Your task to perform on an android device: change keyboard looks Image 0: 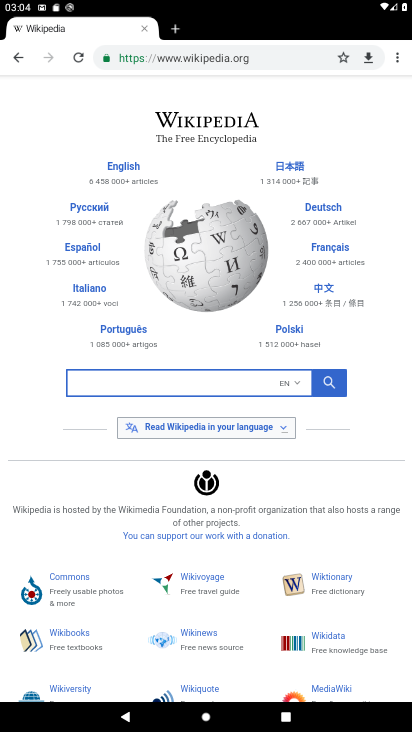
Step 0: press home button
Your task to perform on an android device: change keyboard looks Image 1: 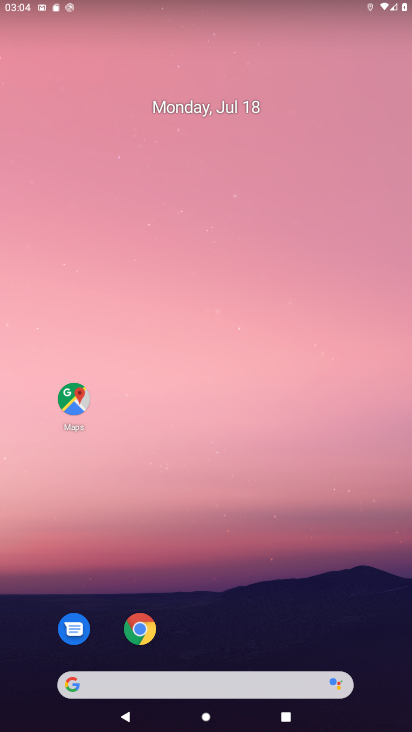
Step 1: drag from (348, 613) to (328, 108)
Your task to perform on an android device: change keyboard looks Image 2: 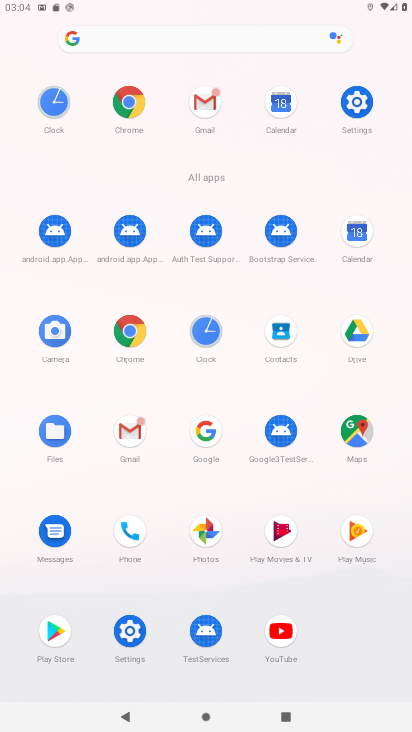
Step 2: click (360, 110)
Your task to perform on an android device: change keyboard looks Image 3: 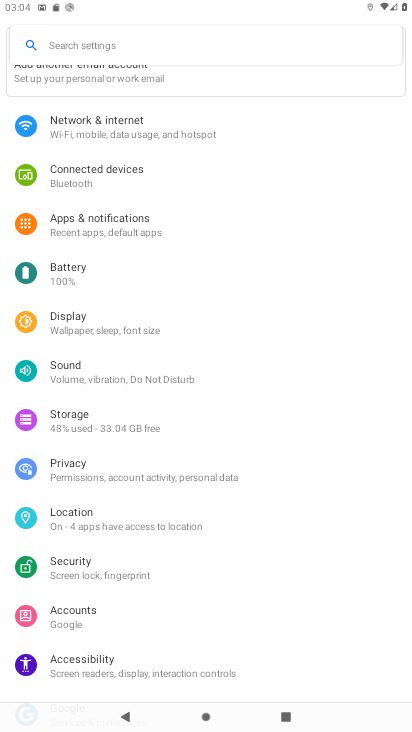
Step 3: drag from (334, 250) to (336, 376)
Your task to perform on an android device: change keyboard looks Image 4: 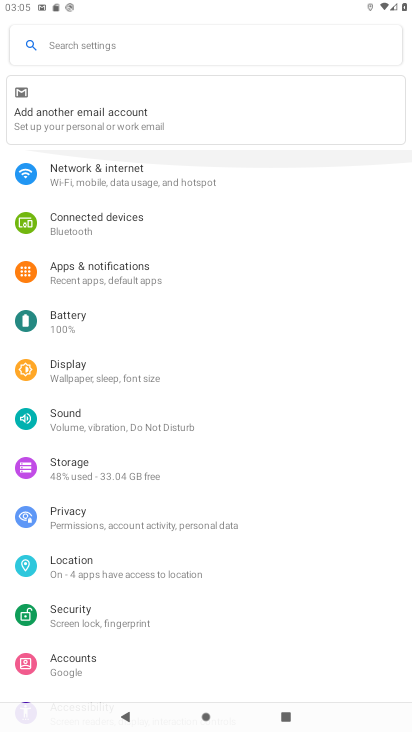
Step 4: drag from (338, 429) to (338, 365)
Your task to perform on an android device: change keyboard looks Image 5: 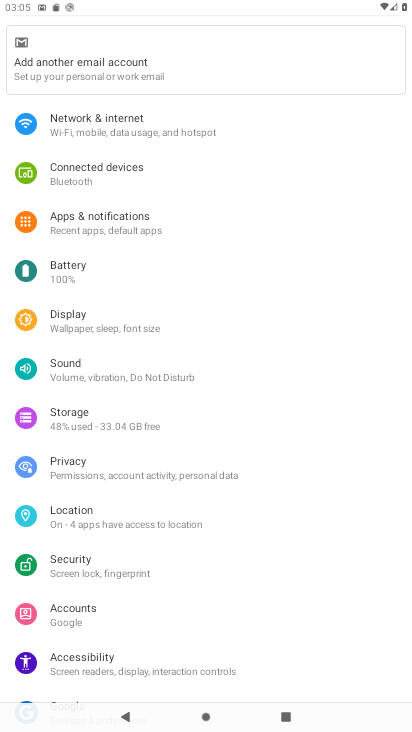
Step 5: drag from (350, 433) to (346, 364)
Your task to perform on an android device: change keyboard looks Image 6: 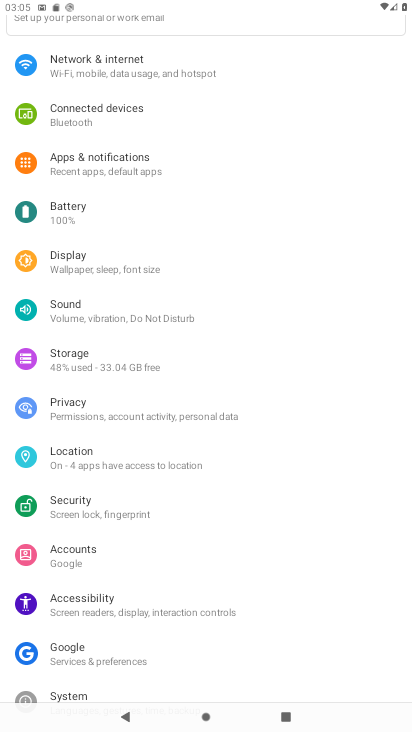
Step 6: drag from (346, 466) to (348, 383)
Your task to perform on an android device: change keyboard looks Image 7: 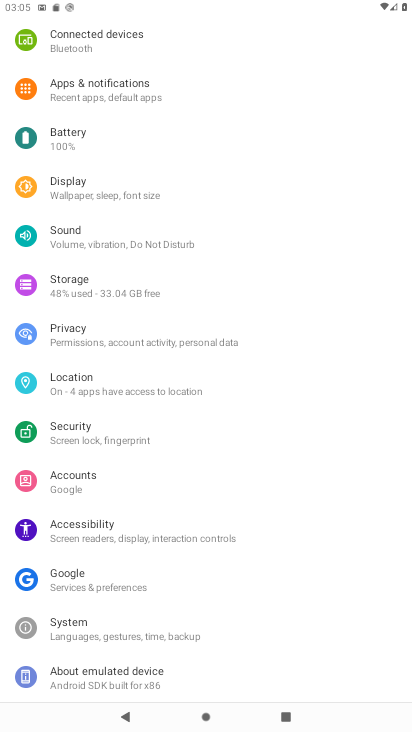
Step 7: drag from (349, 496) to (338, 399)
Your task to perform on an android device: change keyboard looks Image 8: 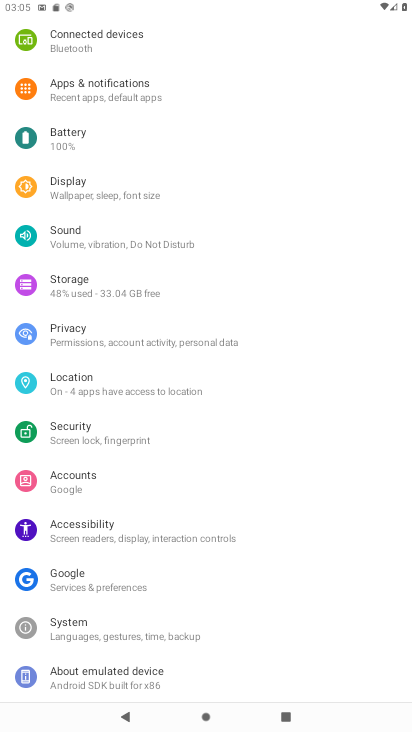
Step 8: click (235, 633)
Your task to perform on an android device: change keyboard looks Image 9: 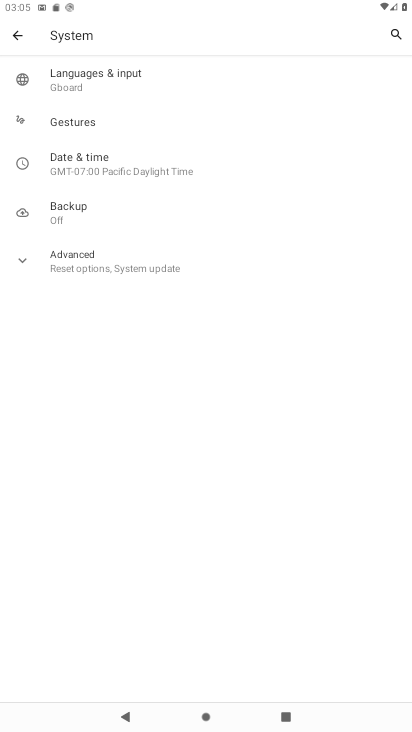
Step 9: click (119, 93)
Your task to perform on an android device: change keyboard looks Image 10: 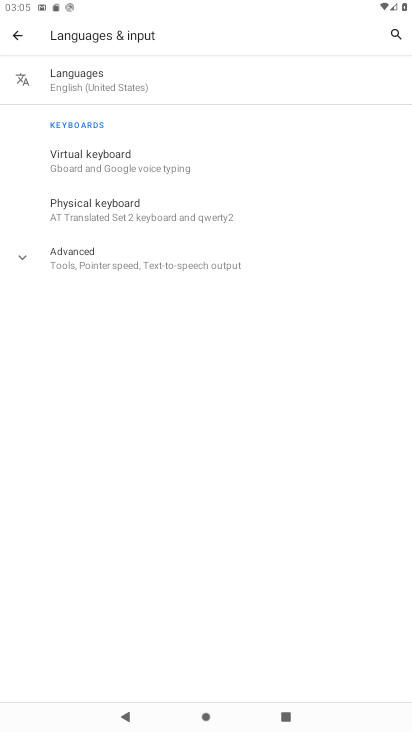
Step 10: click (158, 162)
Your task to perform on an android device: change keyboard looks Image 11: 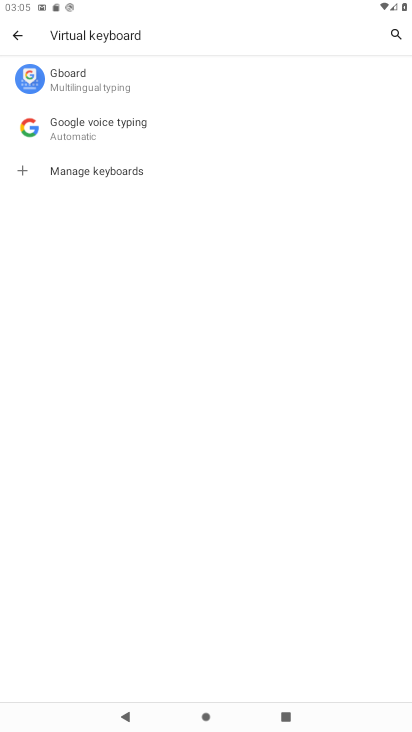
Step 11: click (114, 89)
Your task to perform on an android device: change keyboard looks Image 12: 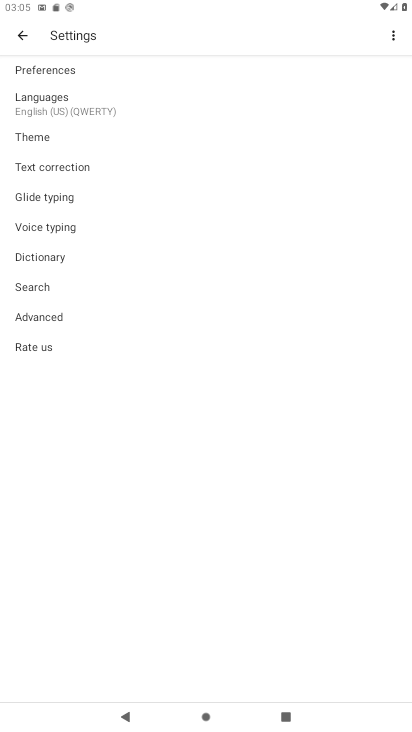
Step 12: click (77, 139)
Your task to perform on an android device: change keyboard looks Image 13: 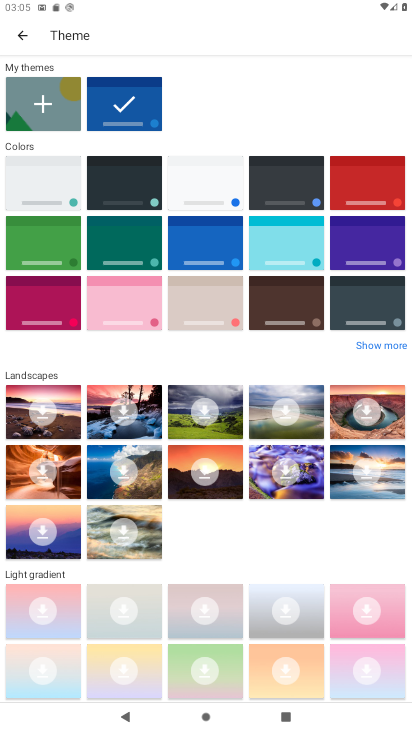
Step 13: click (296, 249)
Your task to perform on an android device: change keyboard looks Image 14: 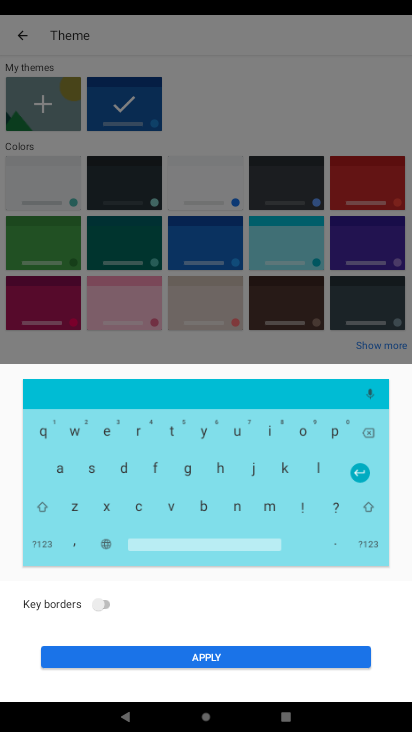
Step 14: click (298, 655)
Your task to perform on an android device: change keyboard looks Image 15: 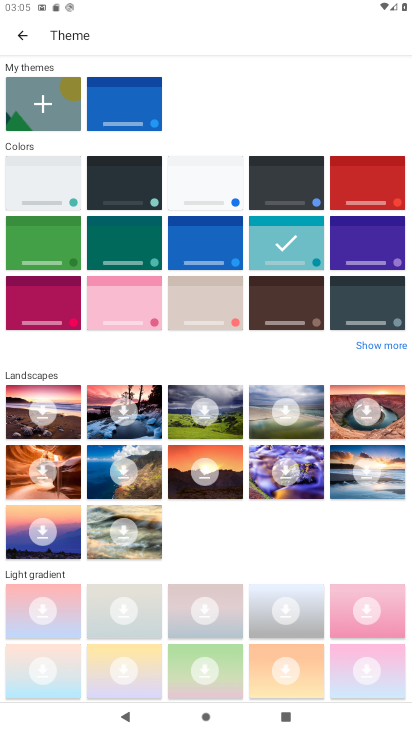
Step 15: task complete